Your task to perform on an android device: Set the phone to "Do not disturb". Image 0: 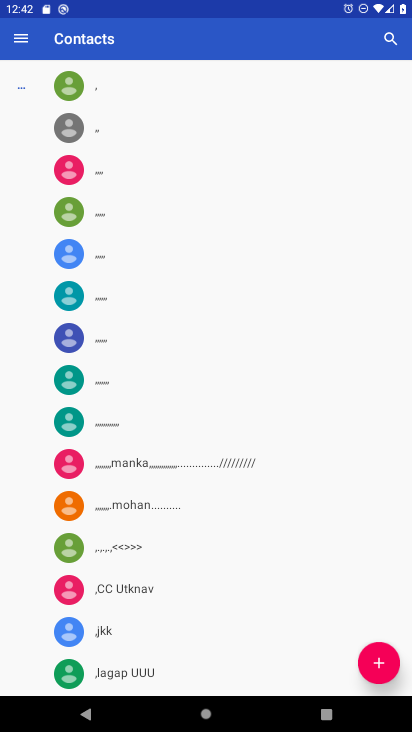
Step 0: press home button
Your task to perform on an android device: Set the phone to "Do not disturb". Image 1: 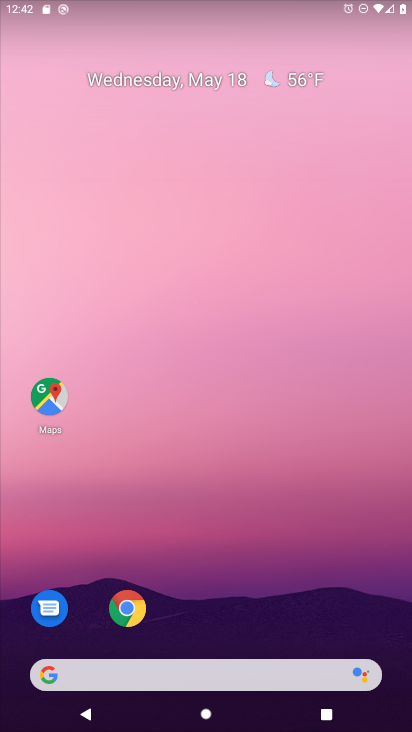
Step 1: drag from (186, 681) to (321, 175)
Your task to perform on an android device: Set the phone to "Do not disturb". Image 2: 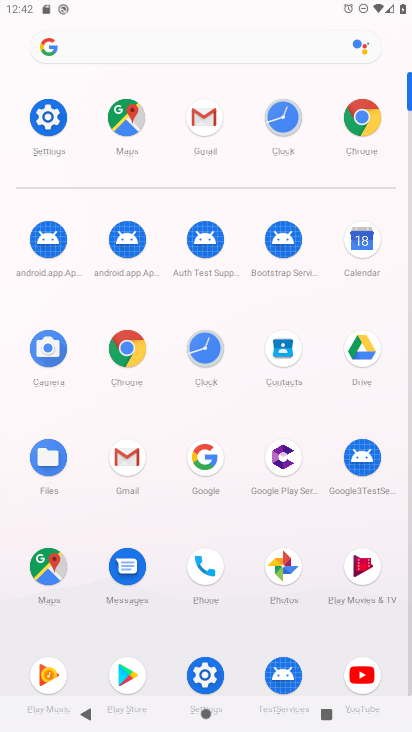
Step 2: click (46, 120)
Your task to perform on an android device: Set the phone to "Do not disturb". Image 3: 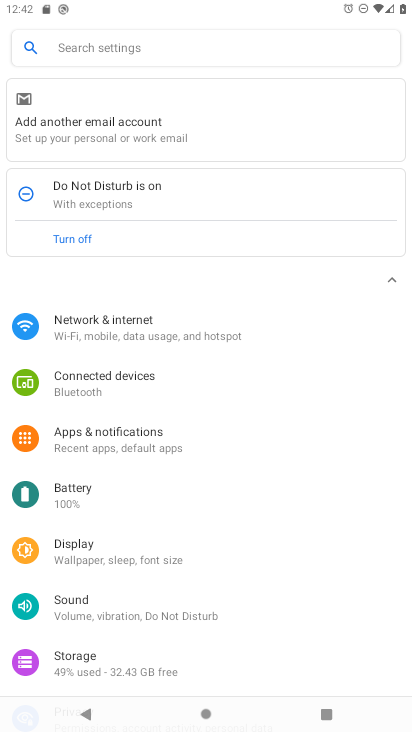
Step 3: click (85, 55)
Your task to perform on an android device: Set the phone to "Do not disturb". Image 4: 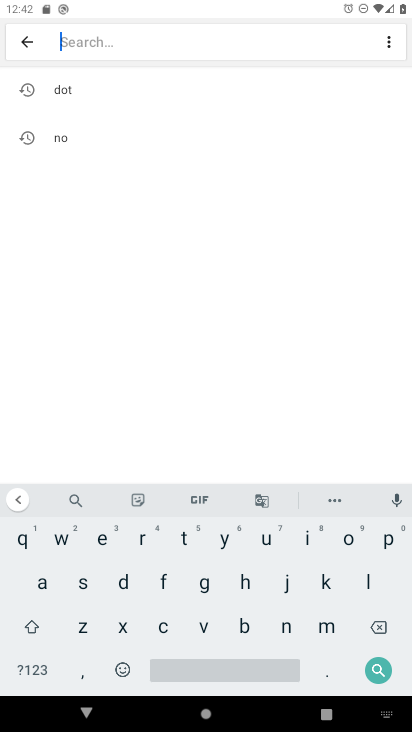
Step 4: click (129, 583)
Your task to perform on an android device: Set the phone to "Do not disturb". Image 5: 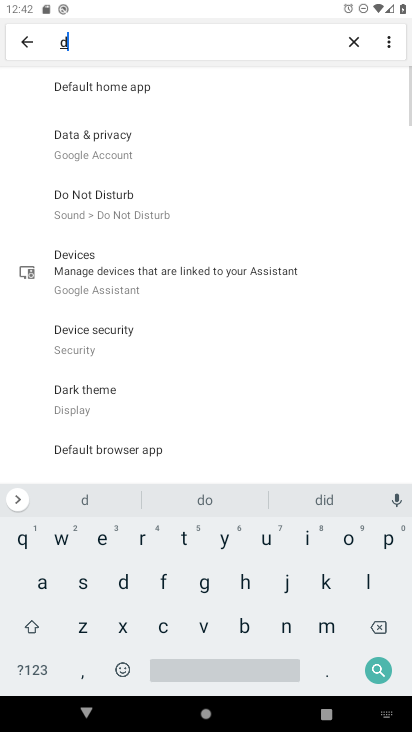
Step 5: click (288, 620)
Your task to perform on an android device: Set the phone to "Do not disturb". Image 6: 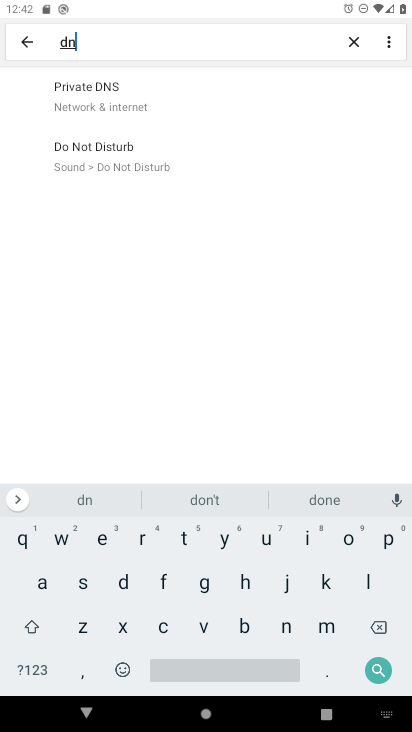
Step 6: click (141, 152)
Your task to perform on an android device: Set the phone to "Do not disturb". Image 7: 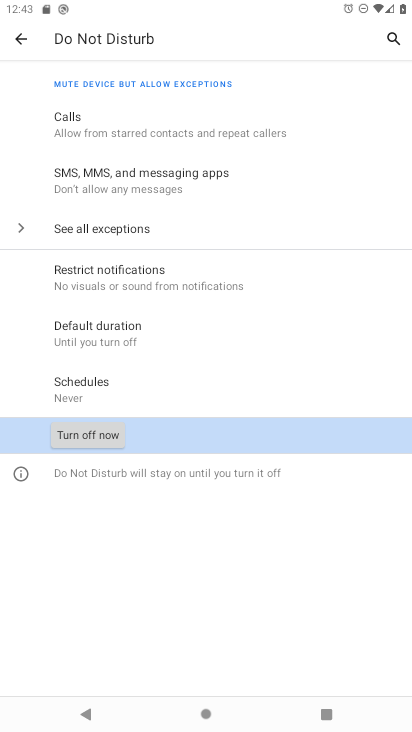
Step 7: click (97, 436)
Your task to perform on an android device: Set the phone to "Do not disturb". Image 8: 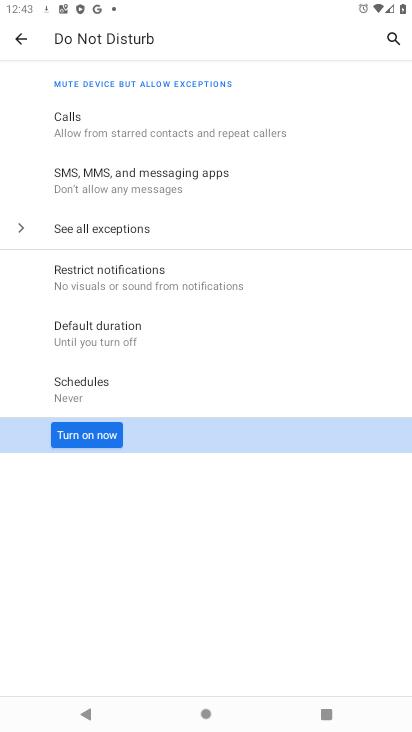
Step 8: click (72, 431)
Your task to perform on an android device: Set the phone to "Do not disturb". Image 9: 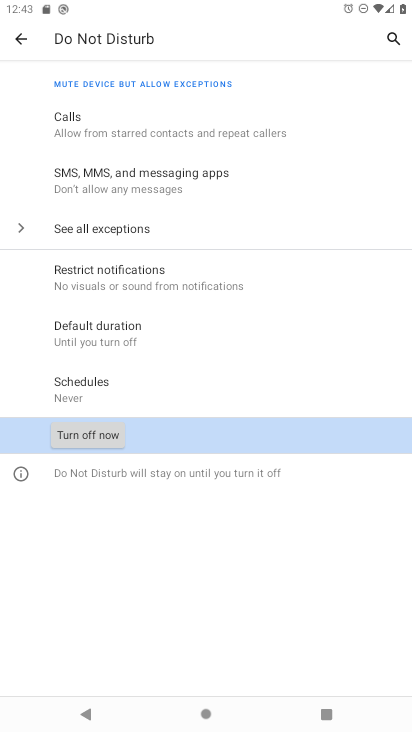
Step 9: task complete